Your task to perform on an android device: What's the news about the US president? Image 0: 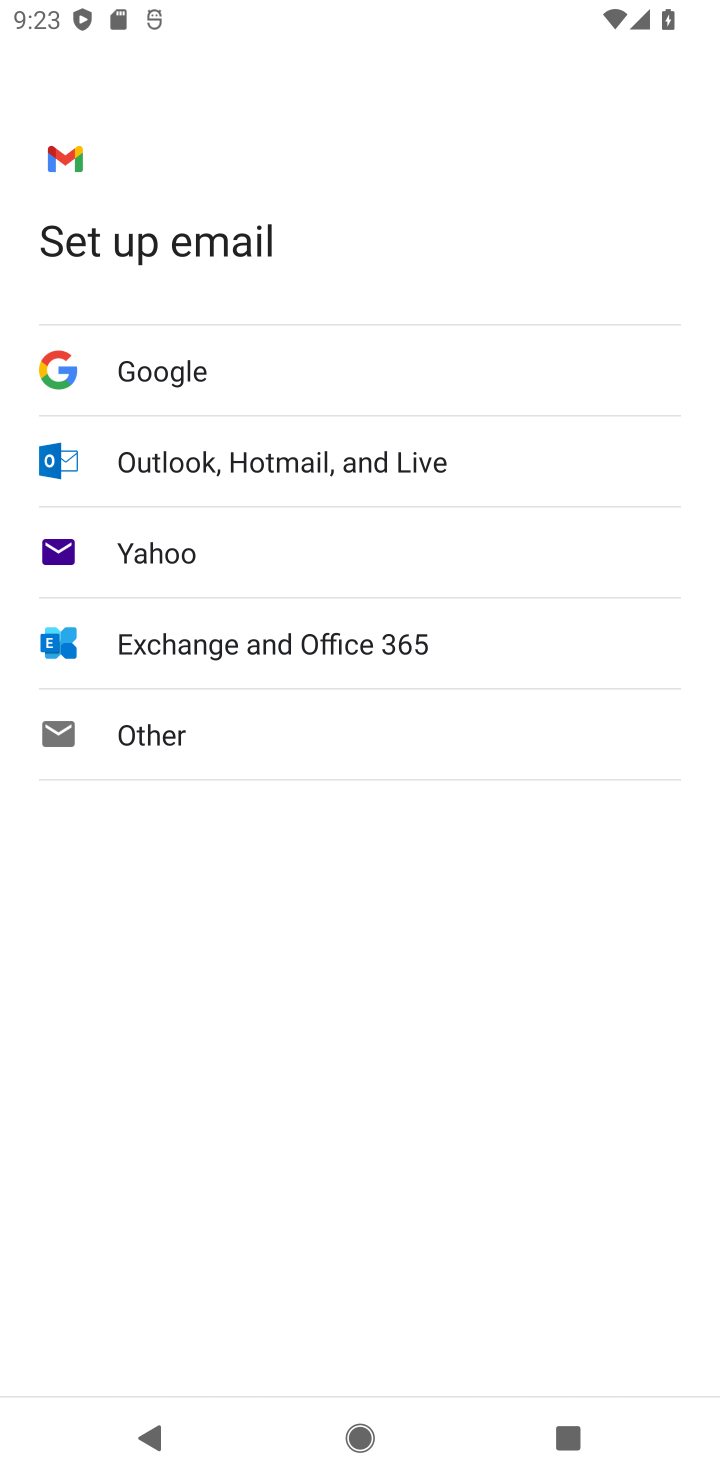
Step 0: press home button
Your task to perform on an android device: What's the news about the US president? Image 1: 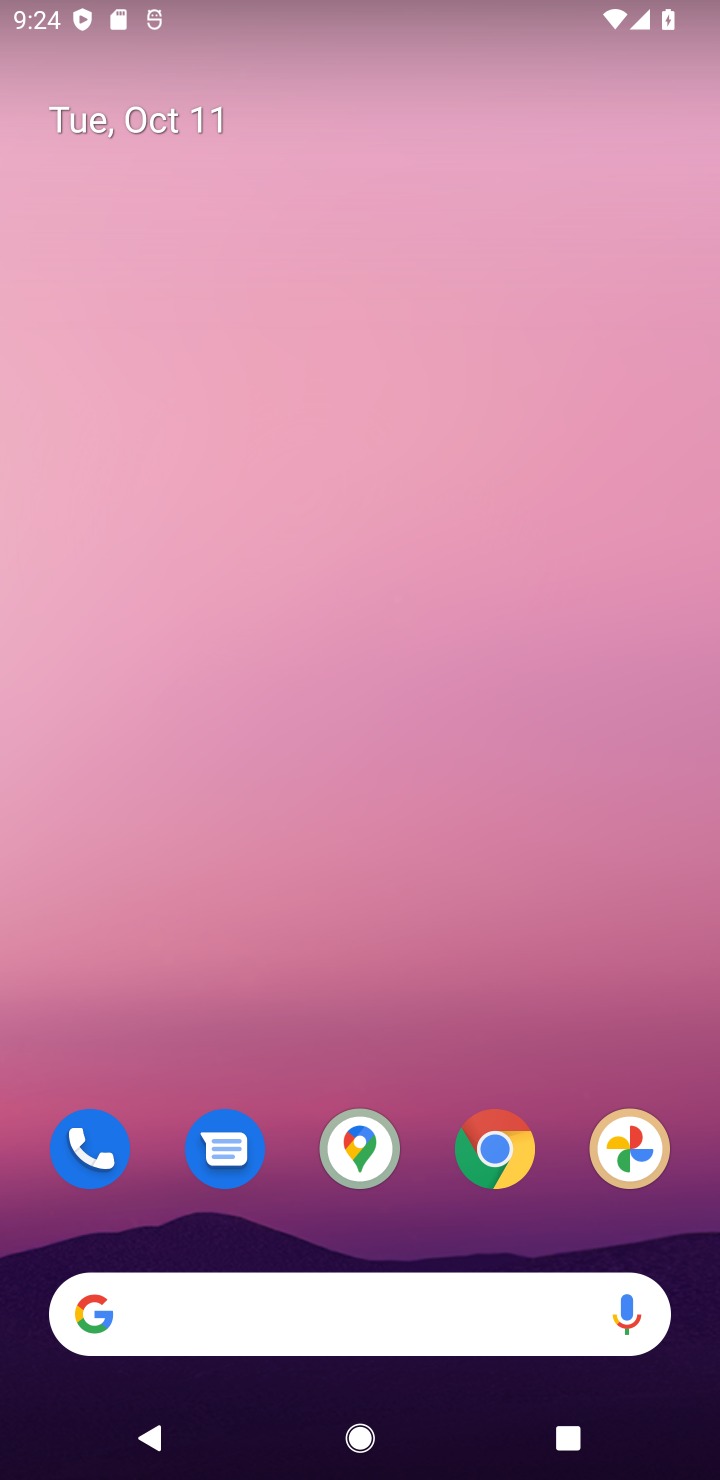
Step 1: type "What's the news about the US president?"
Your task to perform on an android device: What's the news about the US president? Image 2: 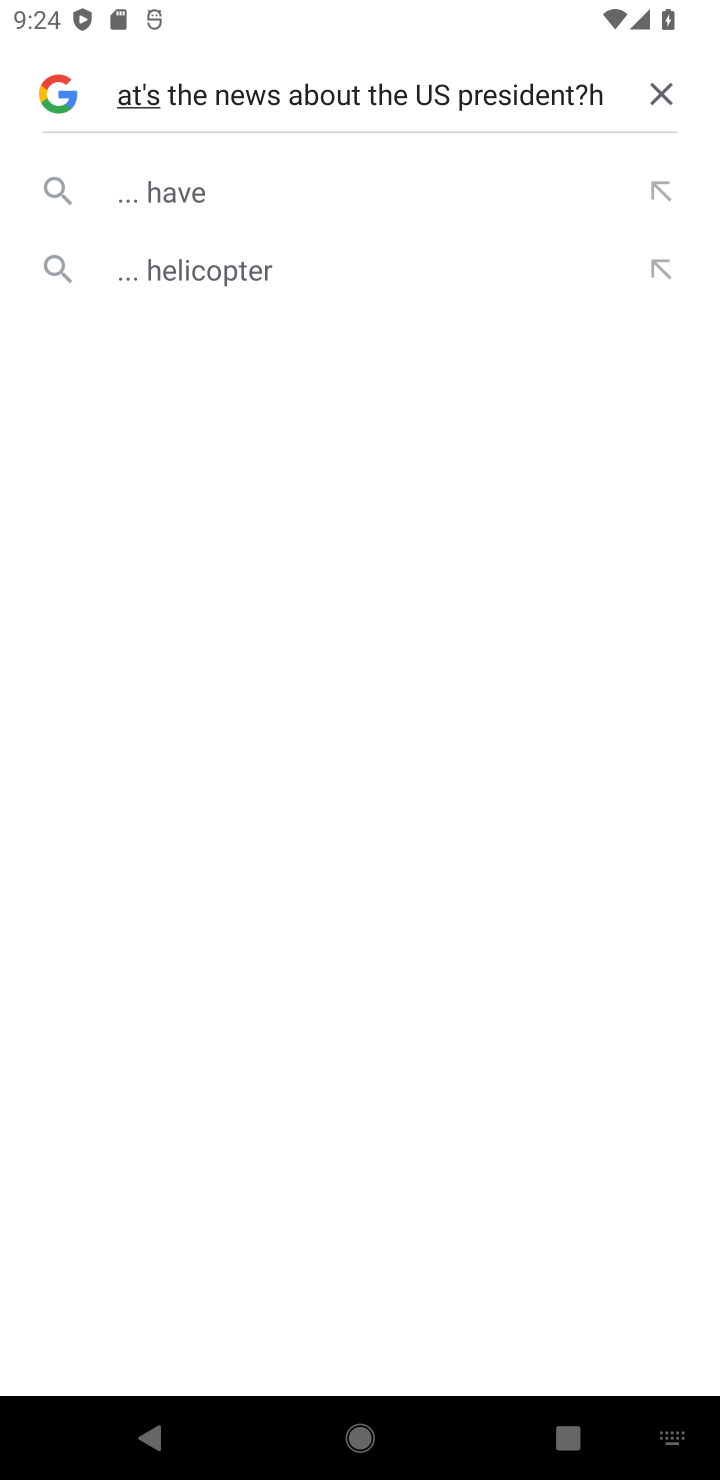
Step 2: click (621, 97)
Your task to perform on an android device: What's the news about the US president? Image 3: 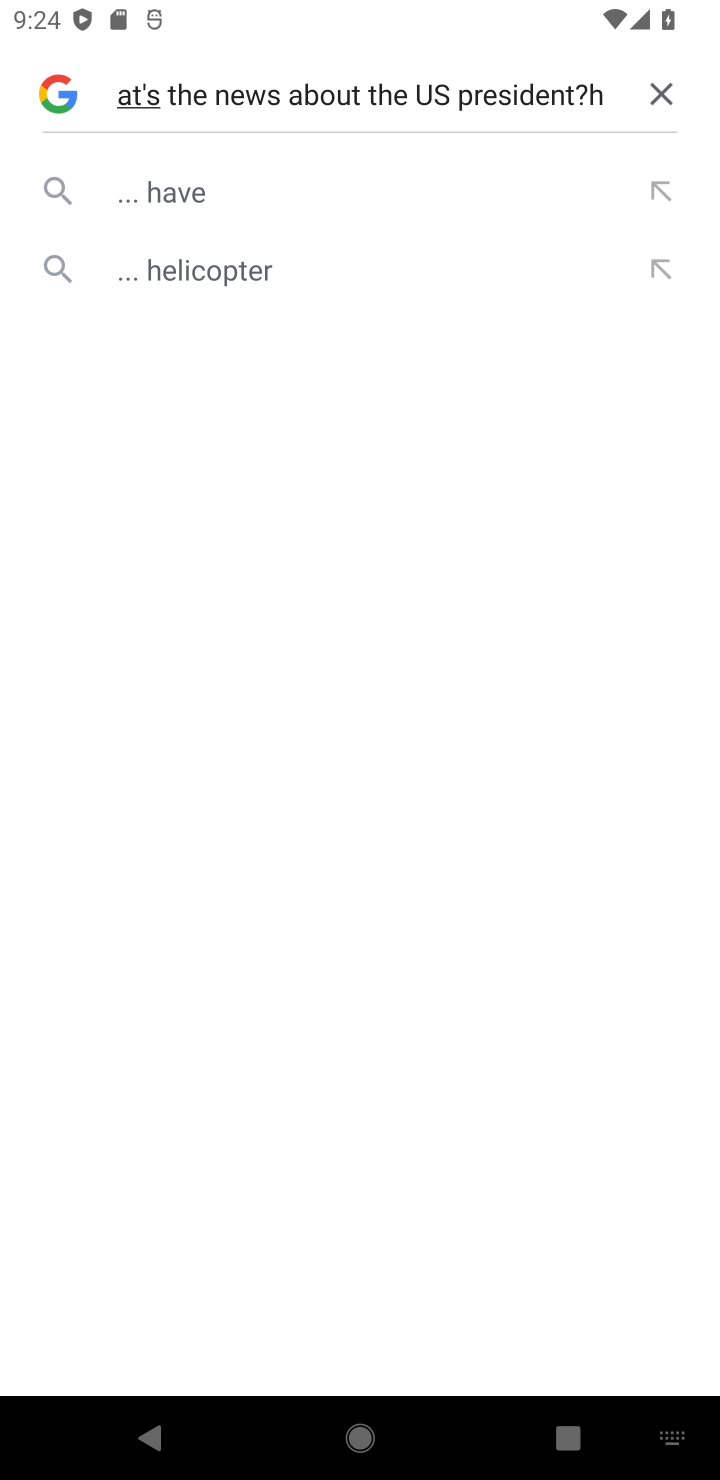
Step 3: click (664, 92)
Your task to perform on an android device: What's the news about the US president? Image 4: 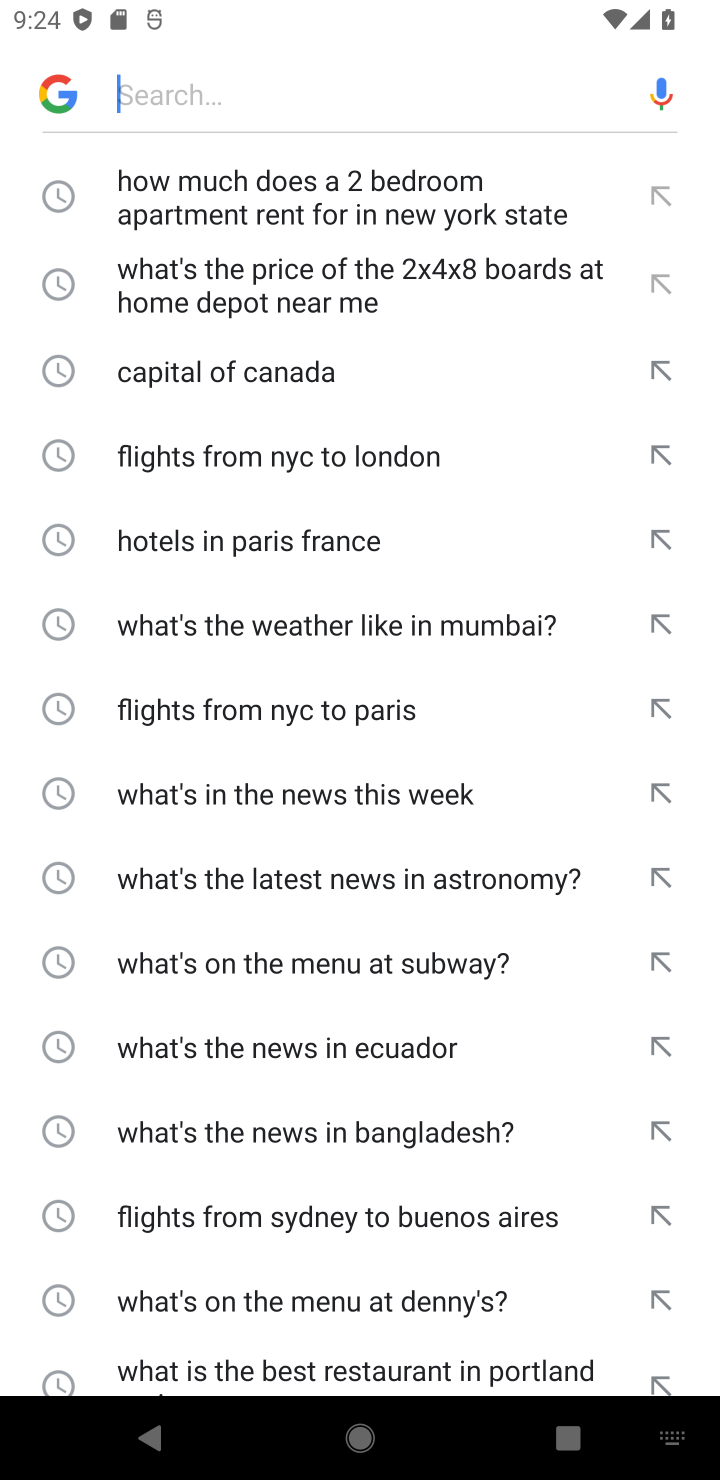
Step 4: type "the news about the US president"
Your task to perform on an android device: What's the news about the US president? Image 5: 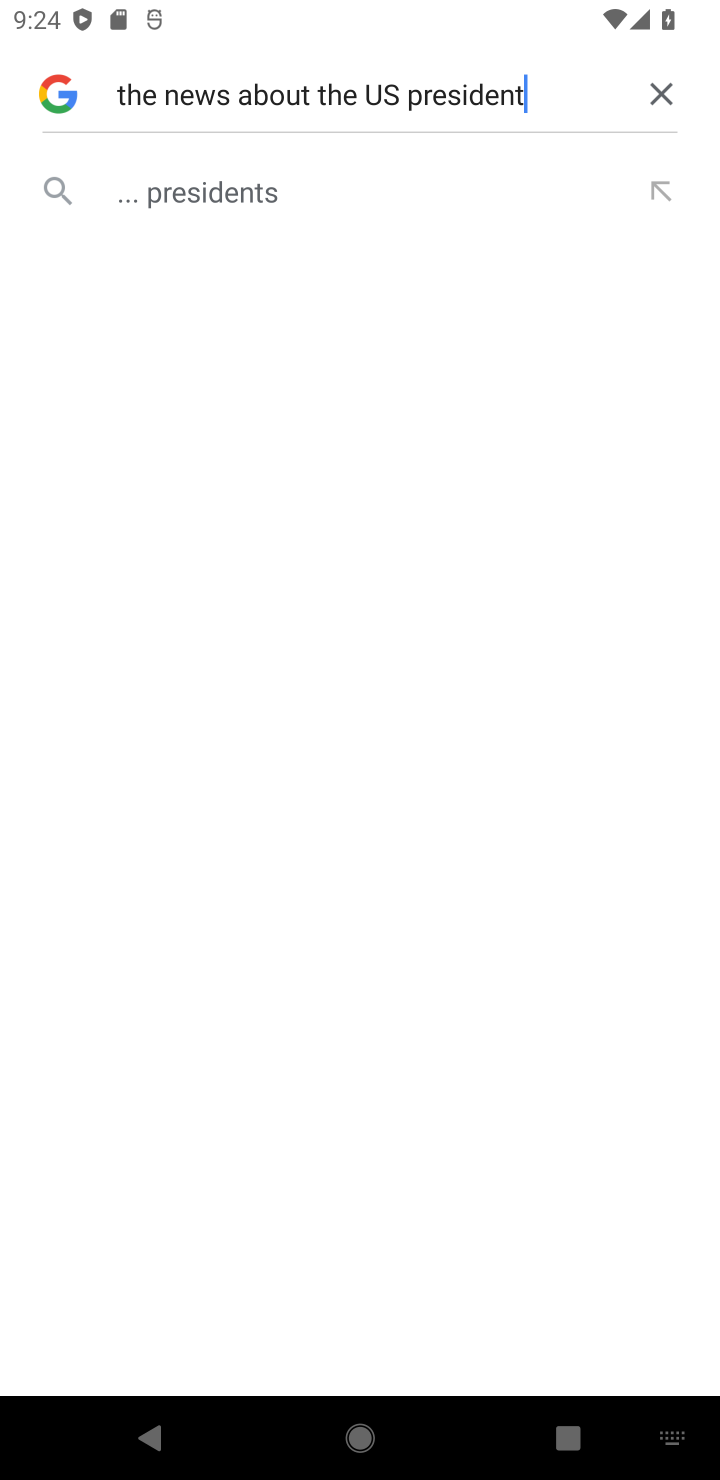
Step 5: click (208, 206)
Your task to perform on an android device: What's the news about the US president? Image 6: 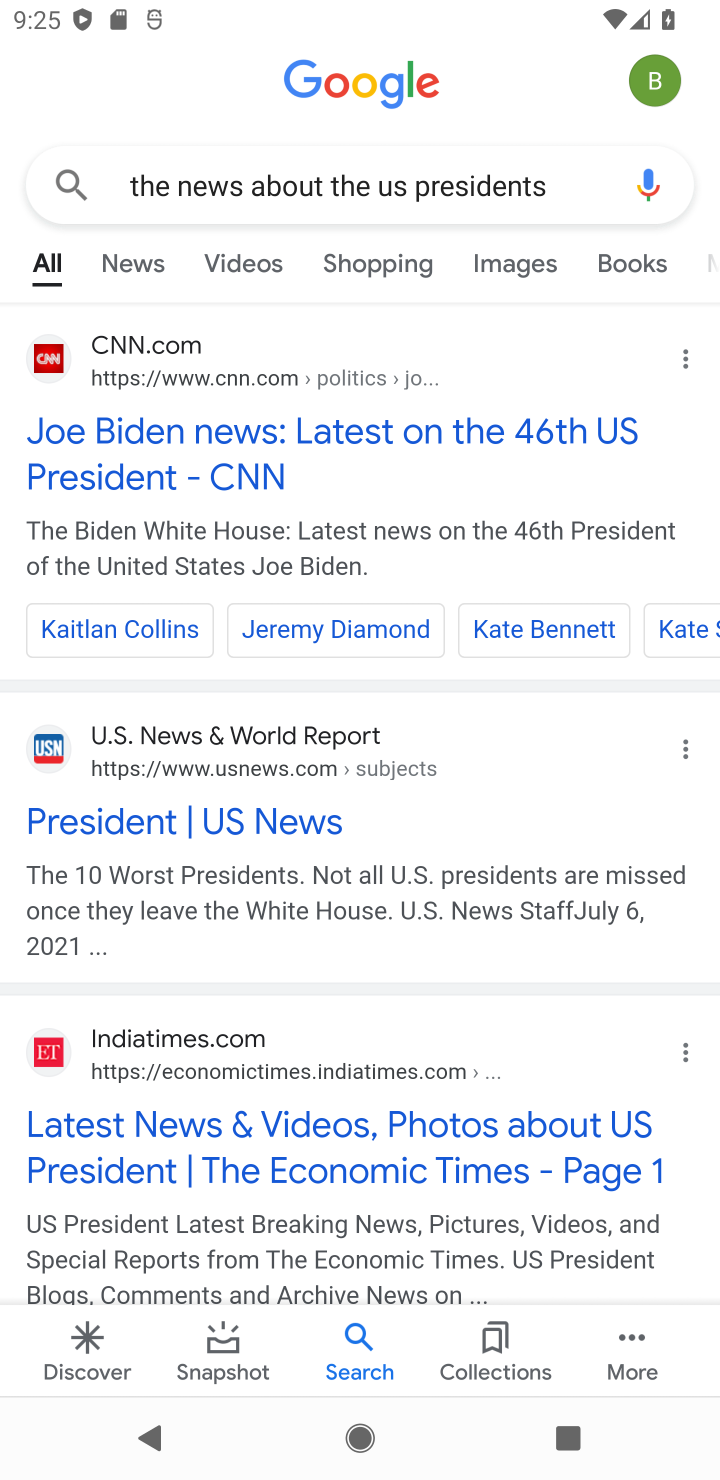
Step 6: task complete